Your task to perform on an android device: Check the weather Image 0: 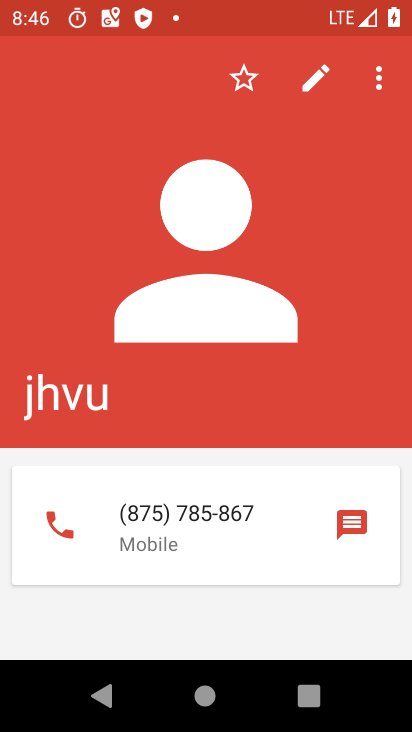
Step 0: press home button
Your task to perform on an android device: Check the weather Image 1: 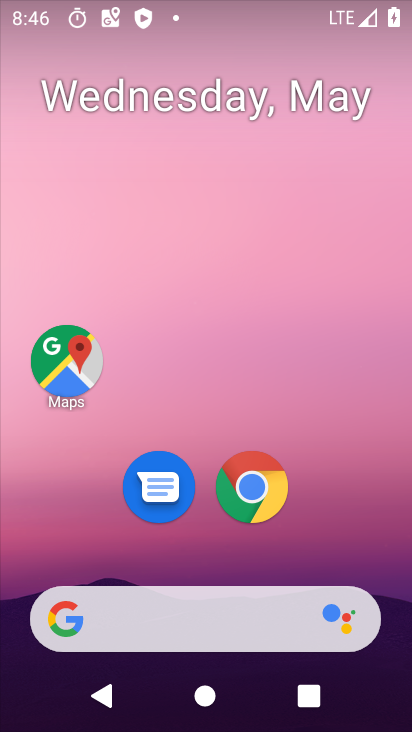
Step 1: drag from (207, 555) to (203, 201)
Your task to perform on an android device: Check the weather Image 2: 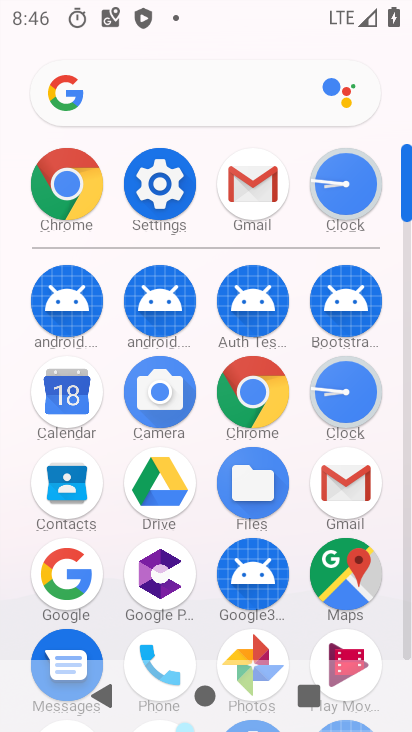
Step 2: click (67, 562)
Your task to perform on an android device: Check the weather Image 3: 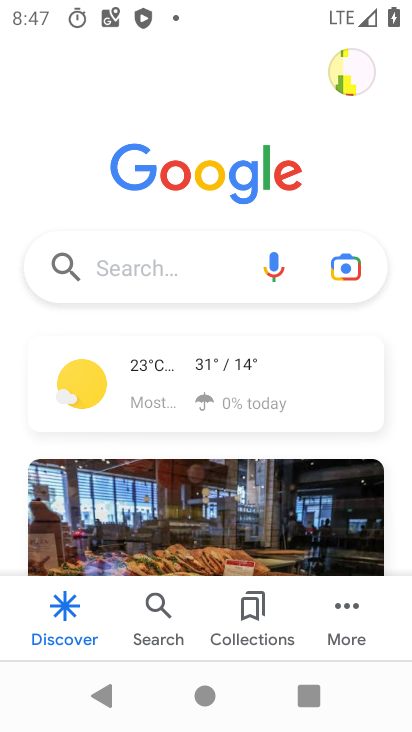
Step 3: click (175, 260)
Your task to perform on an android device: Check the weather Image 4: 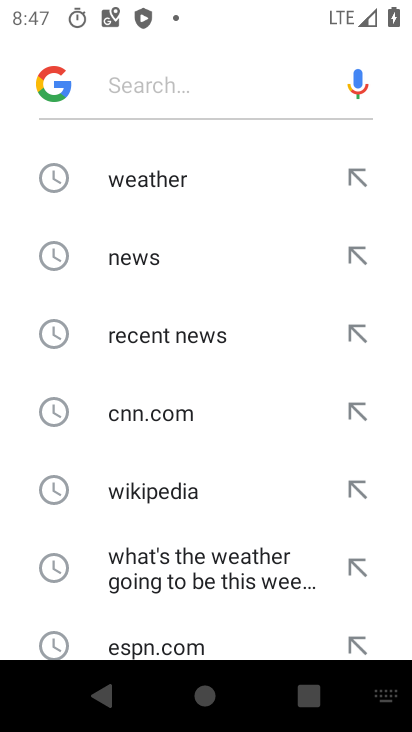
Step 4: click (159, 180)
Your task to perform on an android device: Check the weather Image 5: 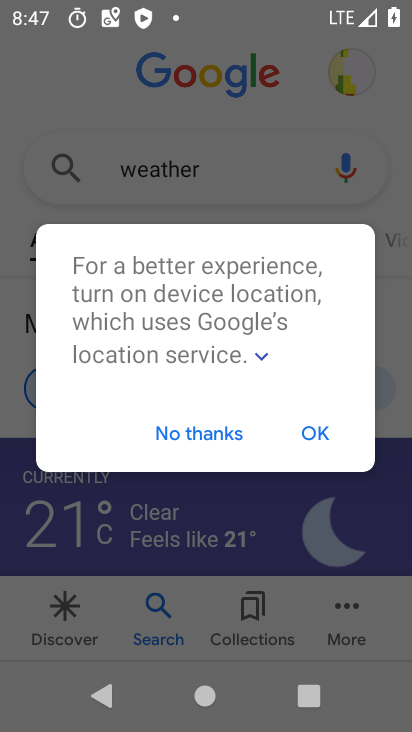
Step 5: click (327, 436)
Your task to perform on an android device: Check the weather Image 6: 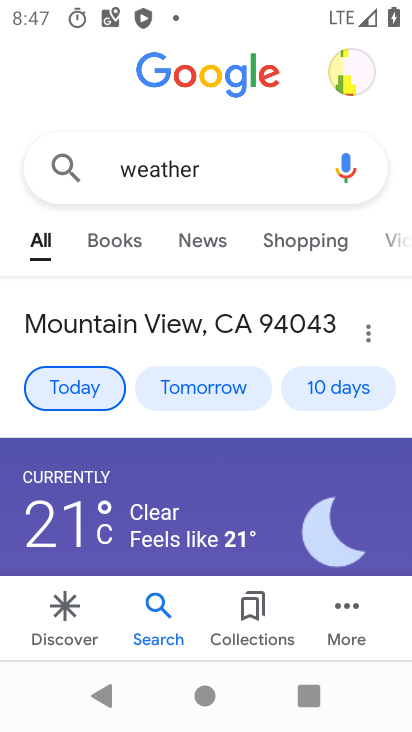
Step 6: task complete